Your task to perform on an android device: Add logitech g502 to the cart on walmart Image 0: 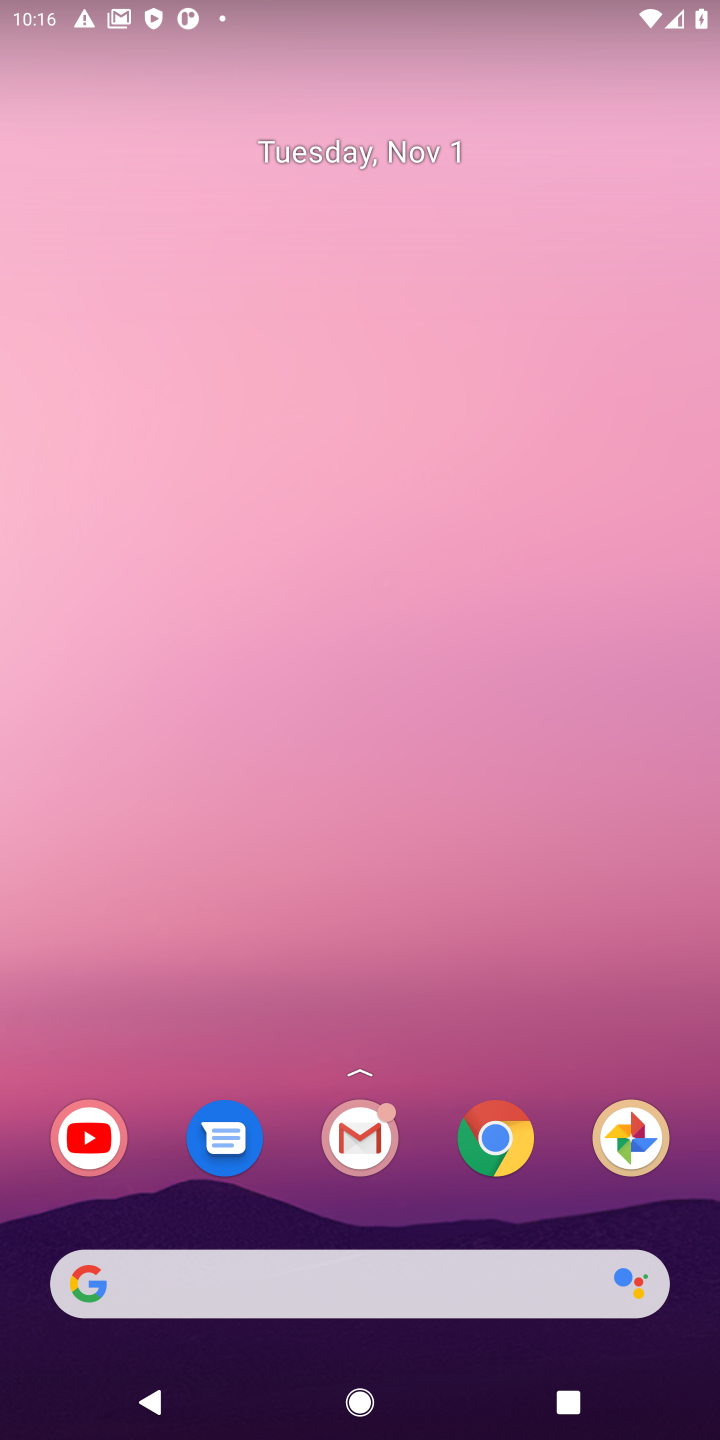
Step 0: click (491, 1139)
Your task to perform on an android device: Add logitech g502 to the cart on walmart Image 1: 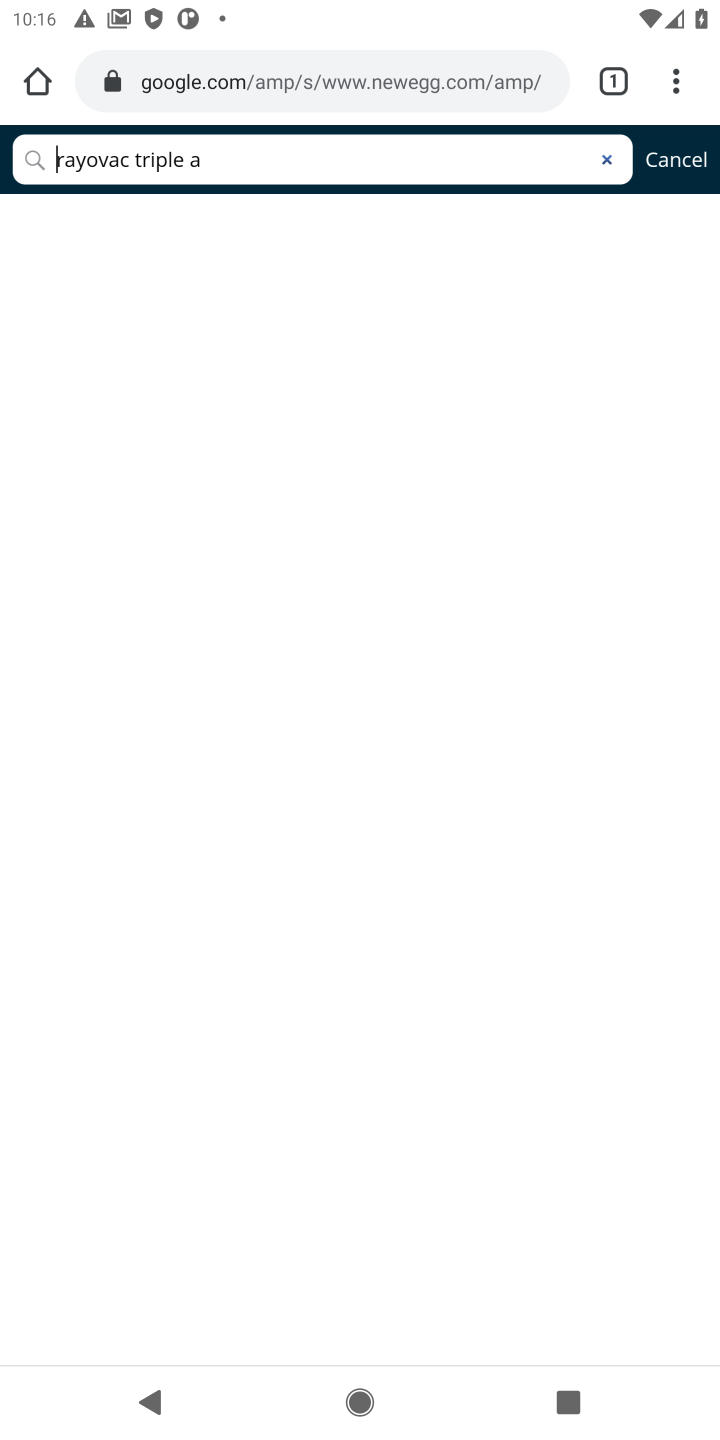
Step 1: click (296, 99)
Your task to perform on an android device: Add logitech g502 to the cart on walmart Image 2: 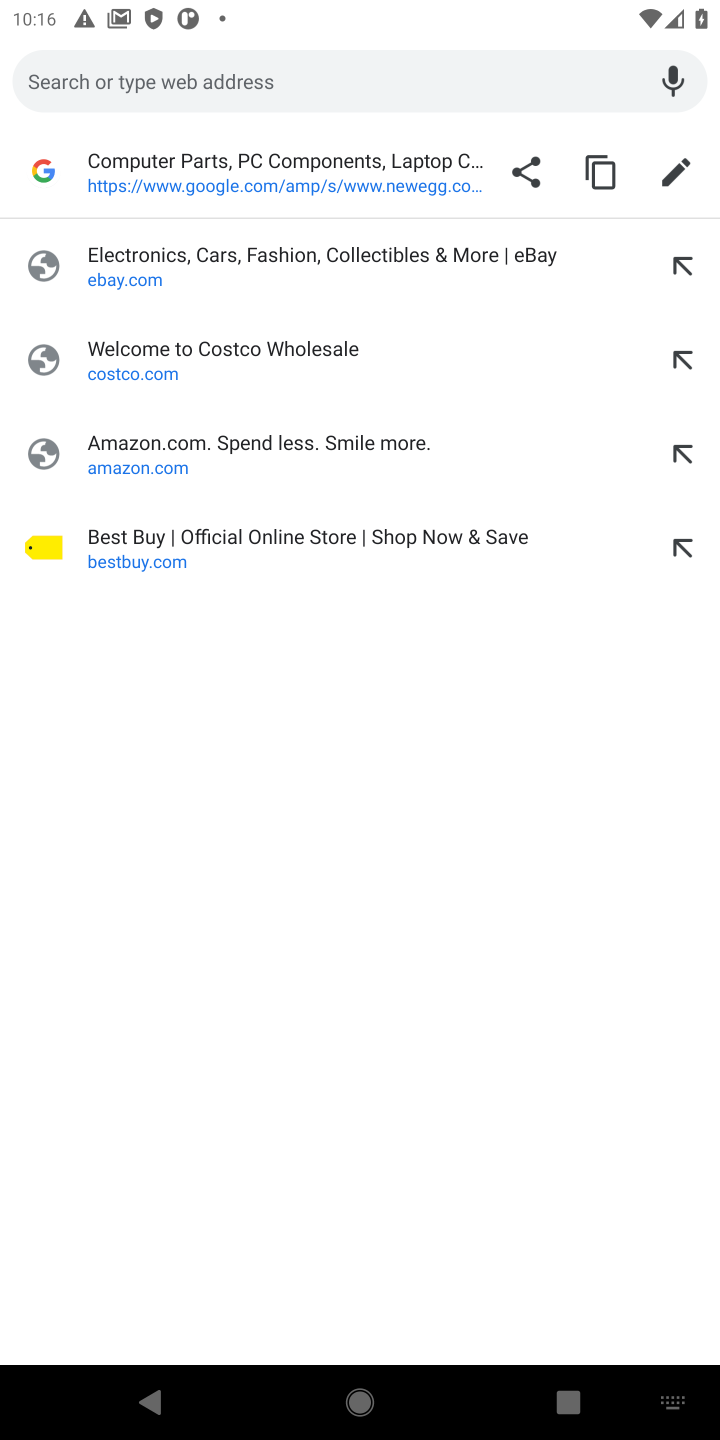
Step 2: type " walmart.com"
Your task to perform on an android device: Add logitech g502 to the cart on walmart Image 3: 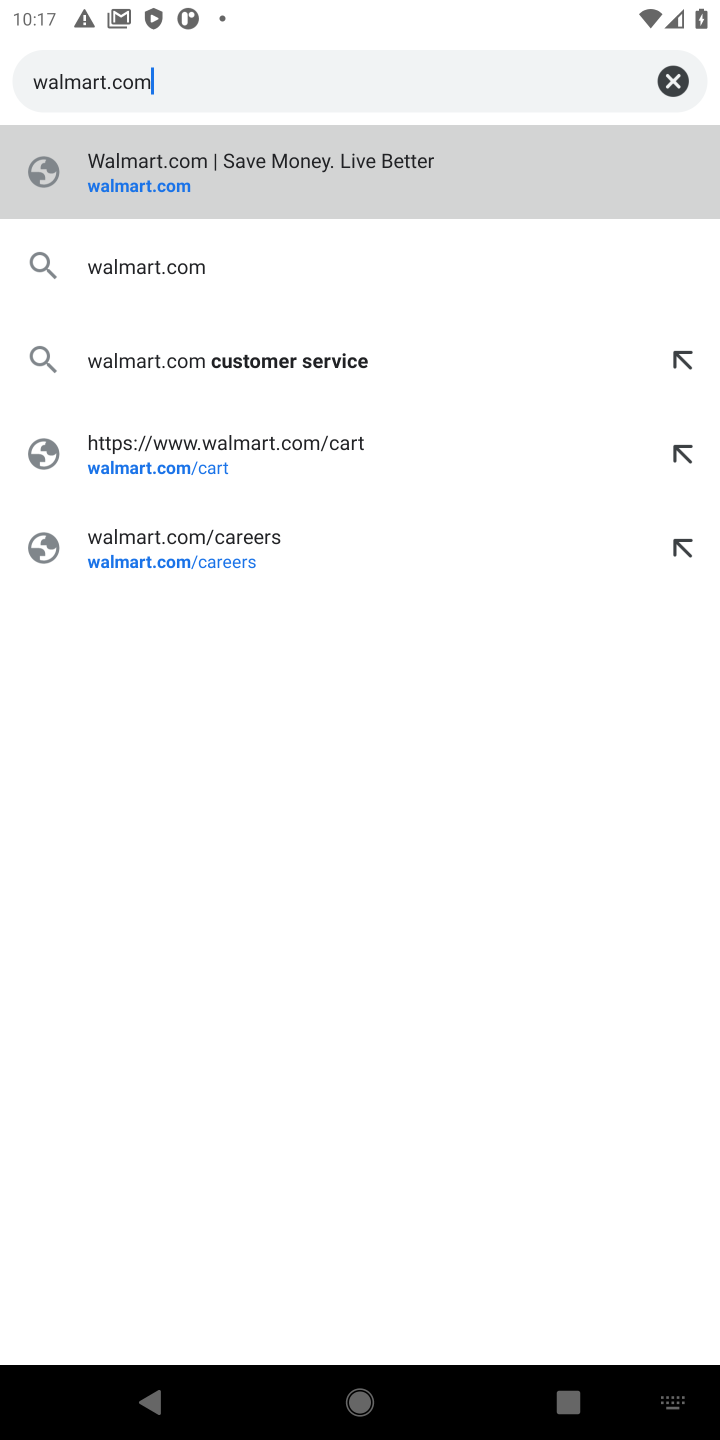
Step 3: click (123, 190)
Your task to perform on an android device: Add logitech g502 to the cart on walmart Image 4: 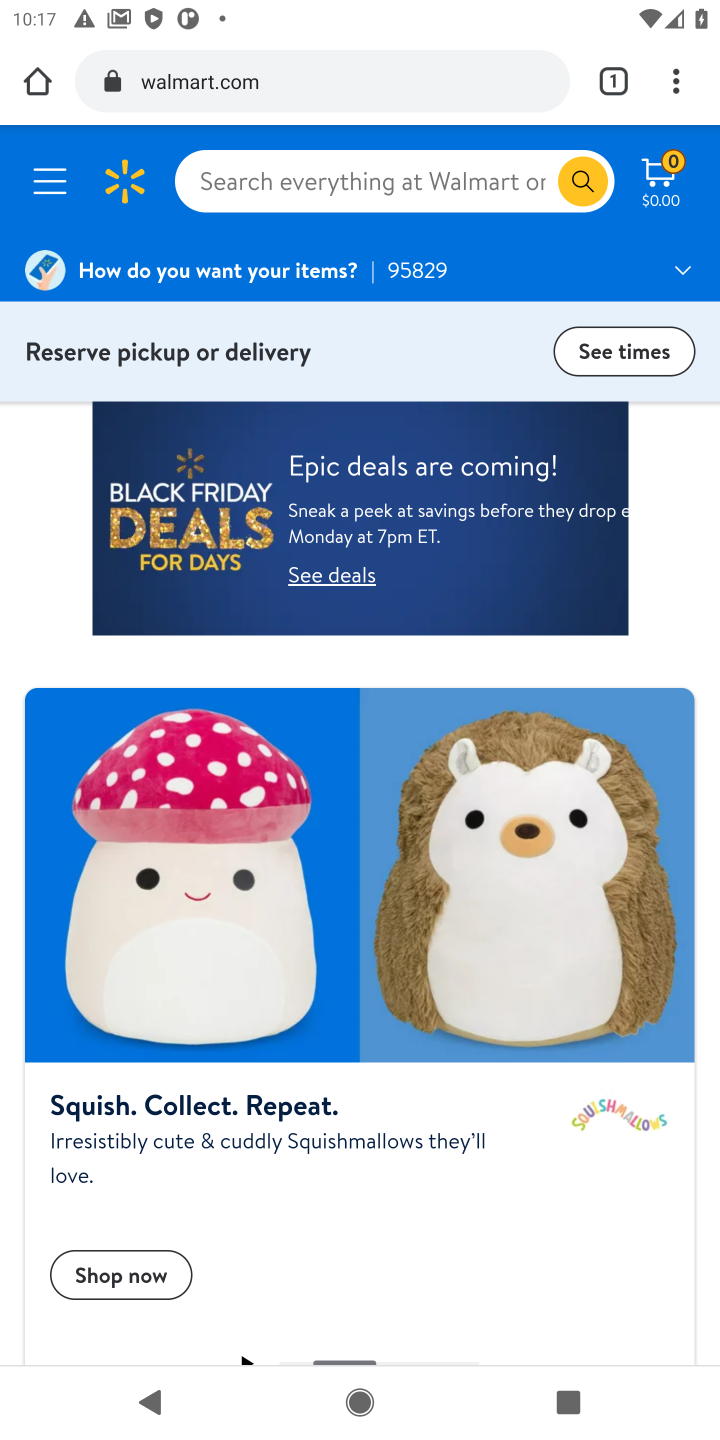
Step 4: click (265, 163)
Your task to perform on an android device: Add logitech g502 to the cart on walmart Image 5: 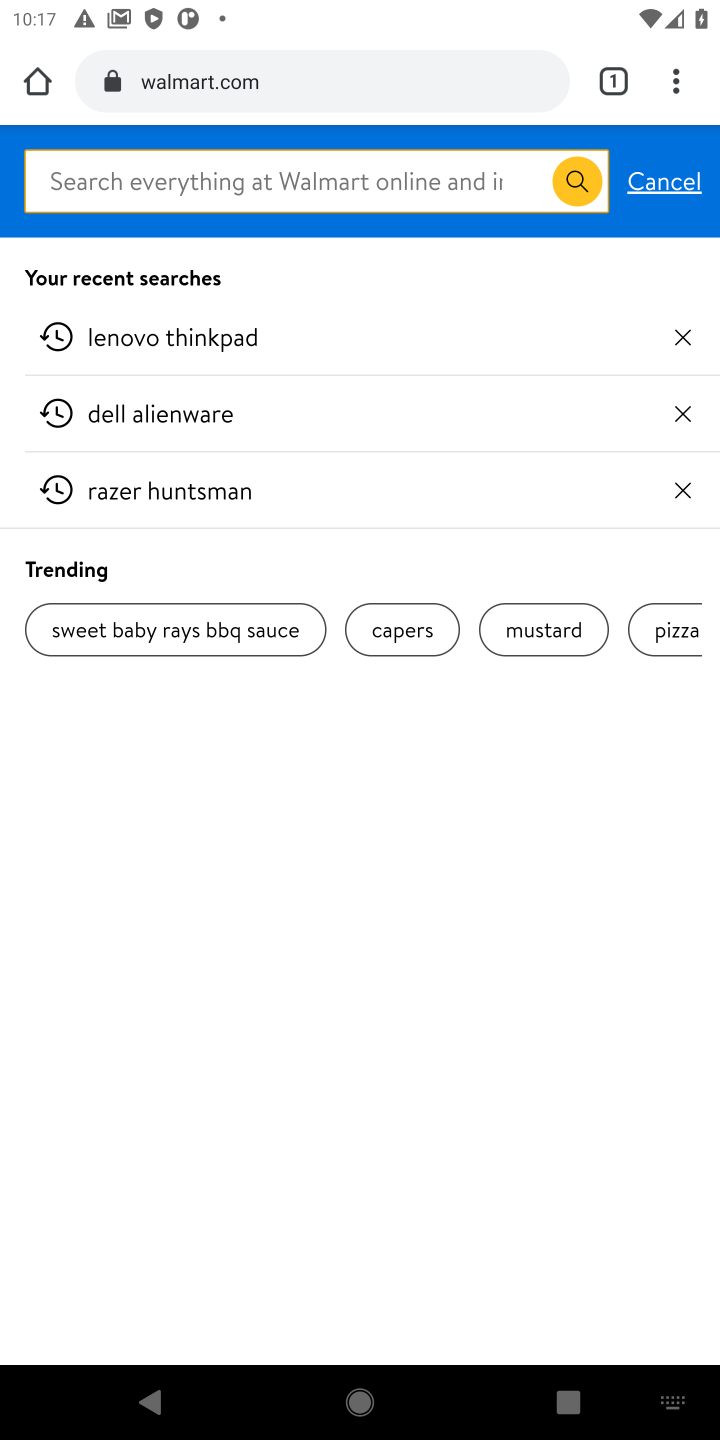
Step 5: type " logitech g502"
Your task to perform on an android device: Add logitech g502 to the cart on walmart Image 6: 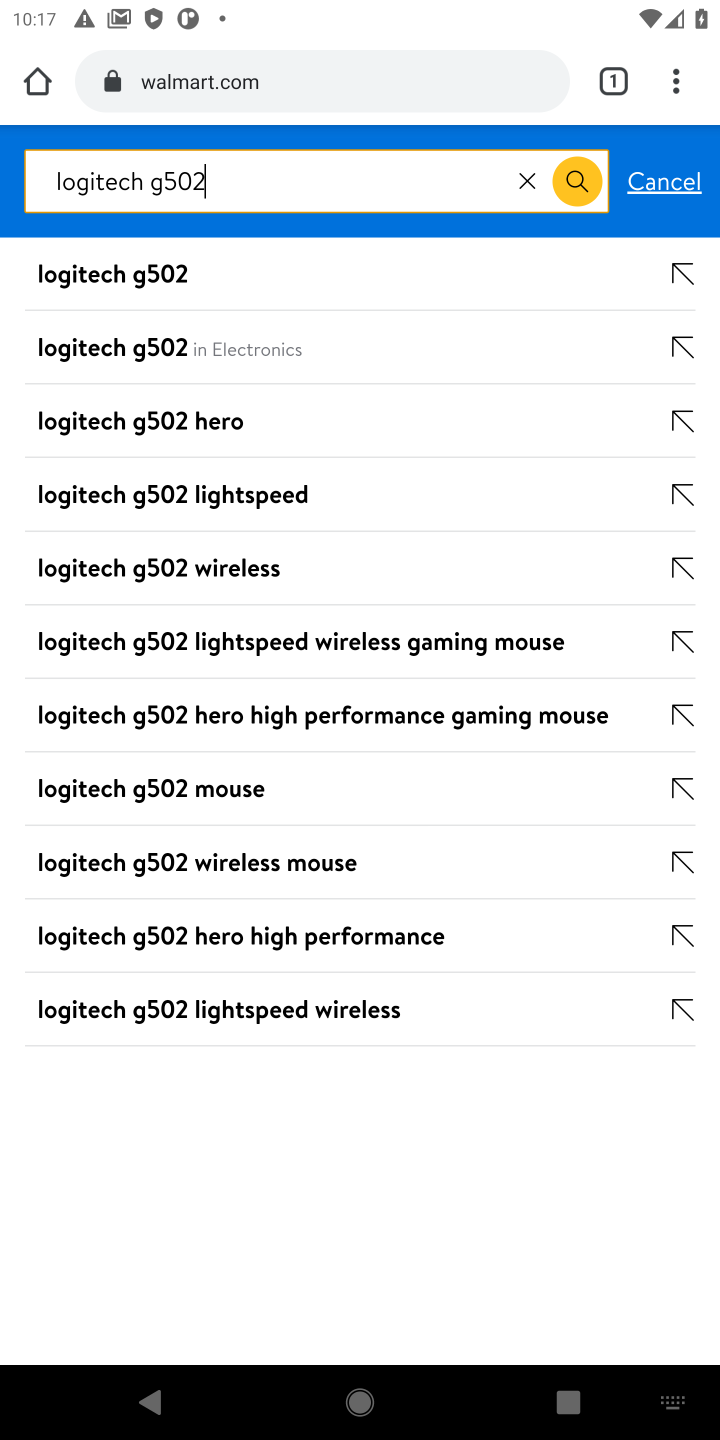
Step 6: click (107, 285)
Your task to perform on an android device: Add logitech g502 to the cart on walmart Image 7: 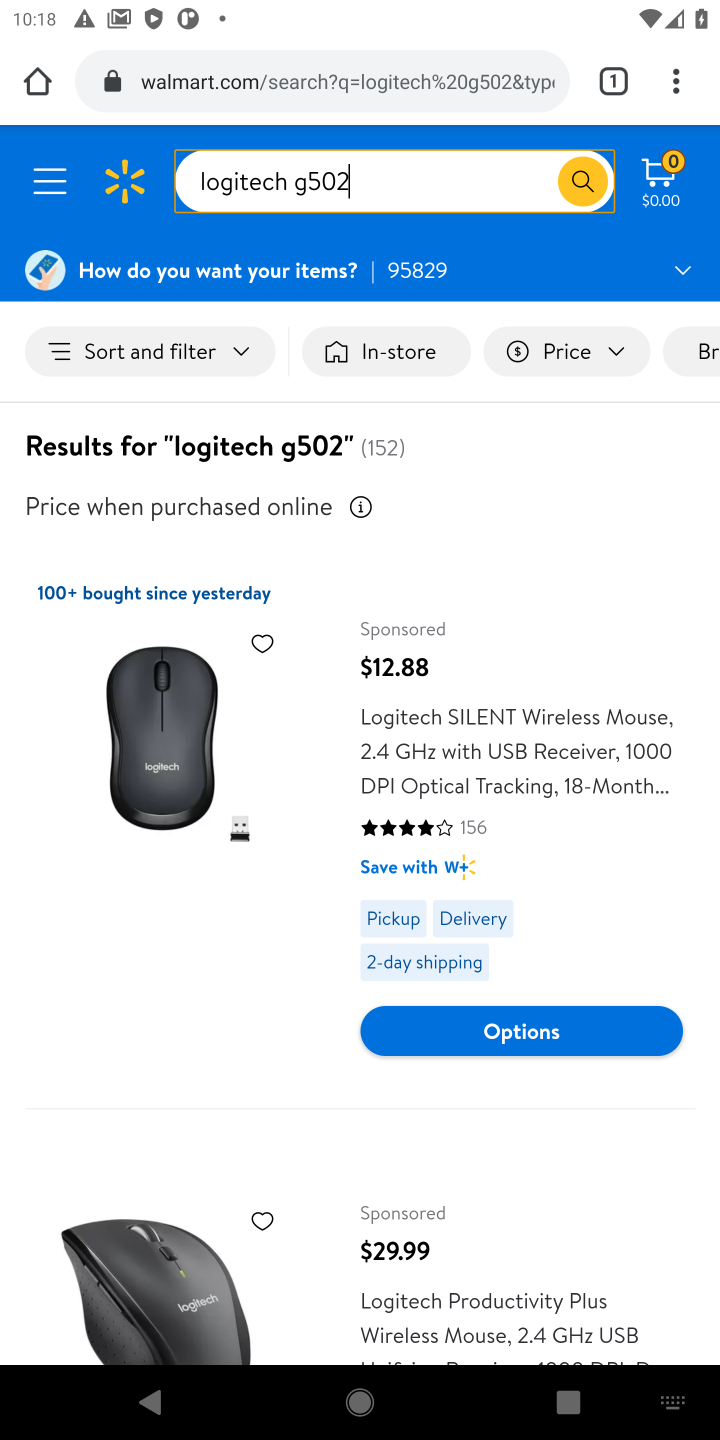
Step 7: click (232, 805)
Your task to perform on an android device: Add logitech g502 to the cart on walmart Image 8: 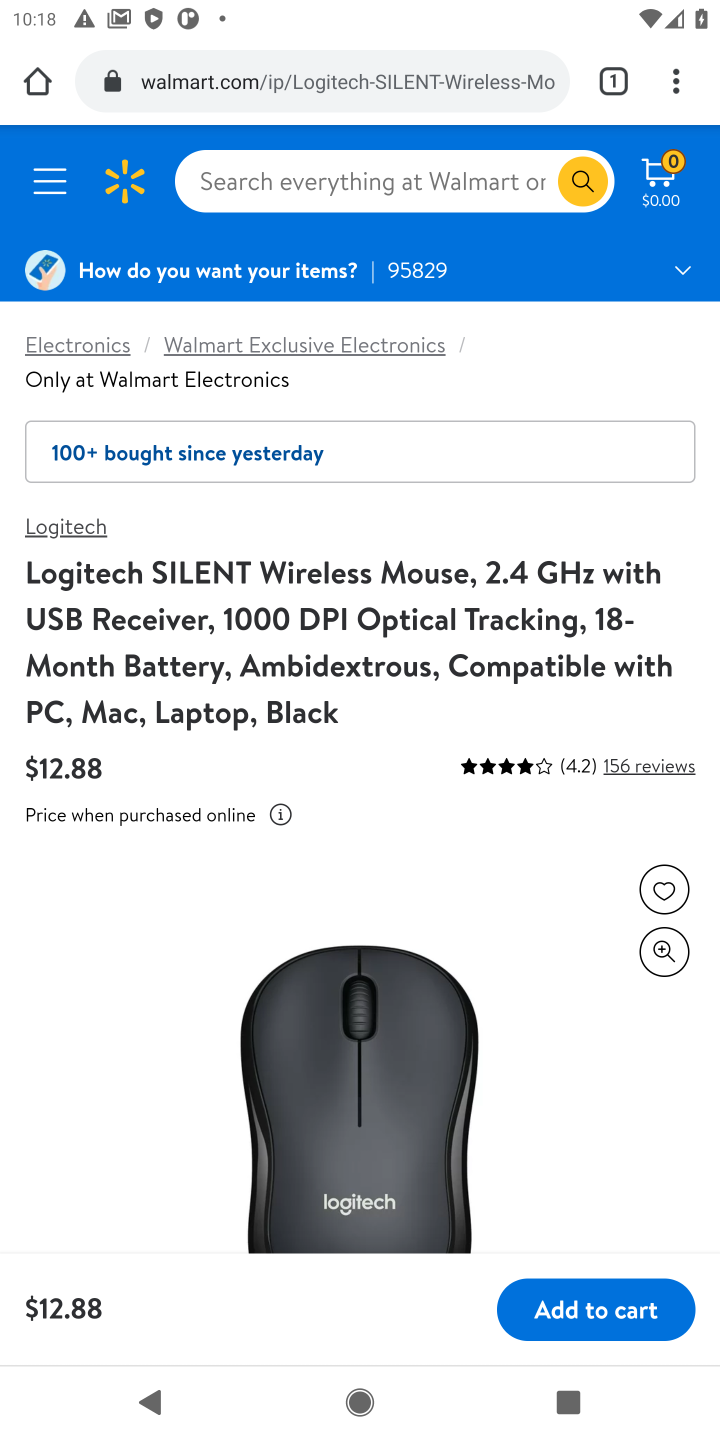
Step 8: drag from (244, 960) to (278, 620)
Your task to perform on an android device: Add logitech g502 to the cart on walmart Image 9: 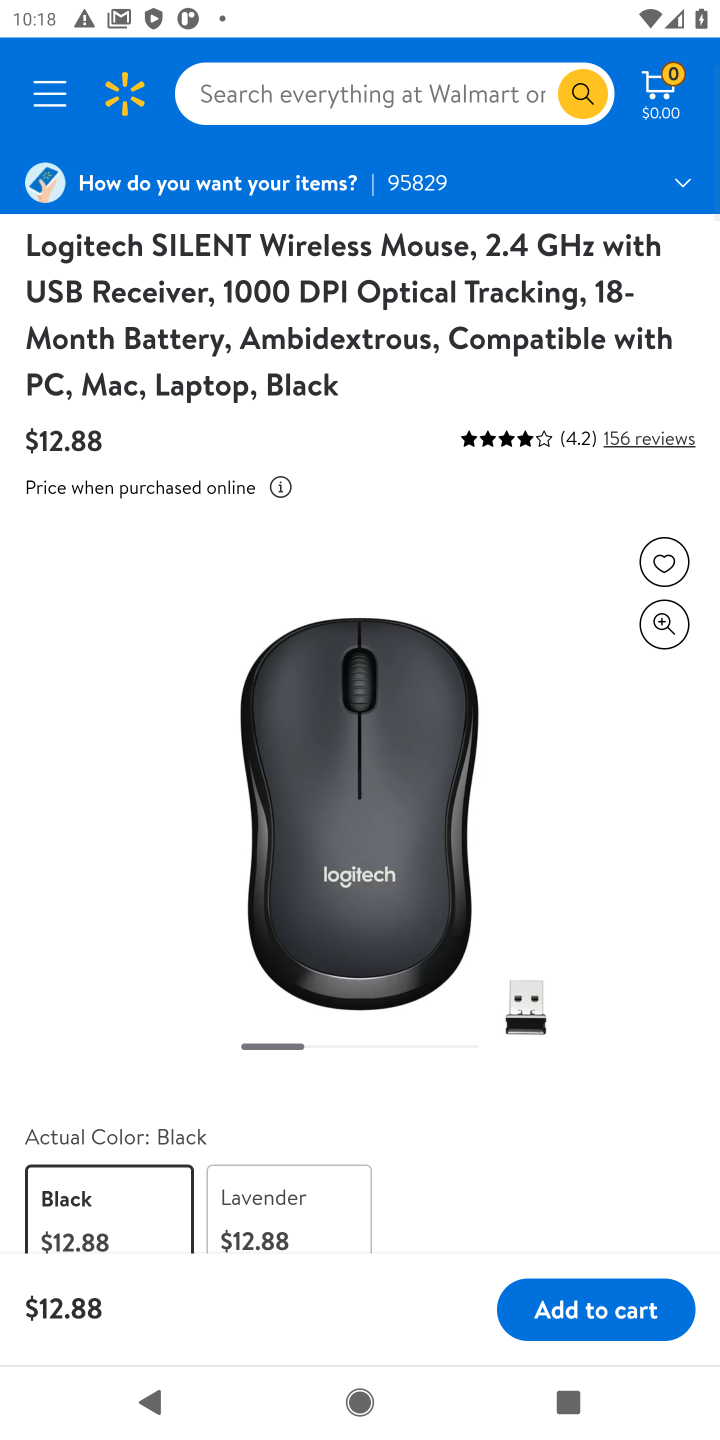
Step 9: click (608, 1314)
Your task to perform on an android device: Add logitech g502 to the cart on walmart Image 10: 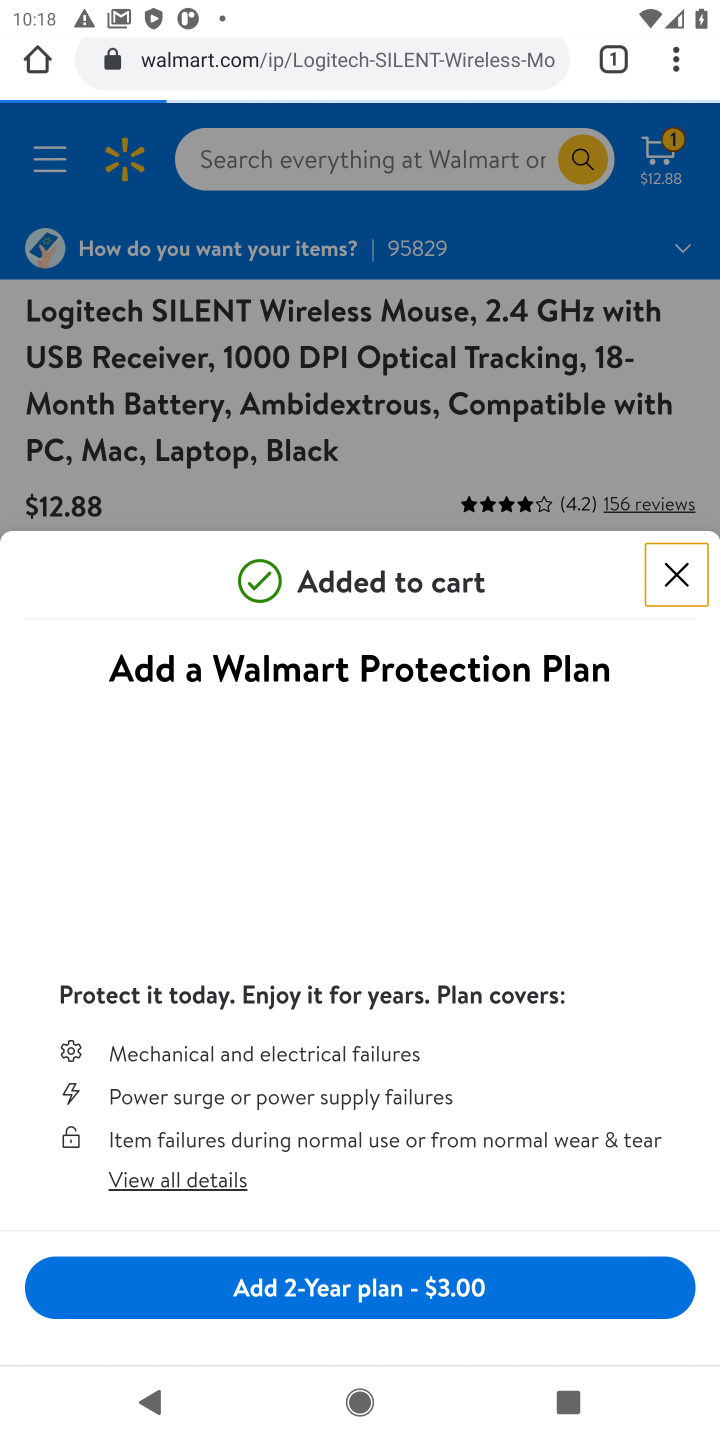
Step 10: task complete